Your task to perform on an android device: change the clock style Image 0: 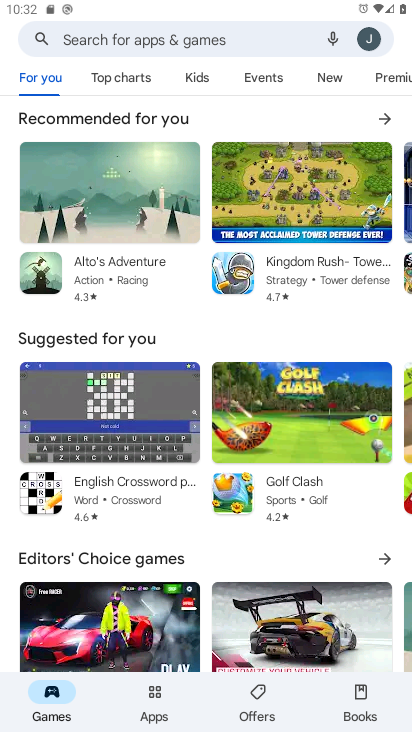
Step 0: press home button
Your task to perform on an android device: change the clock style Image 1: 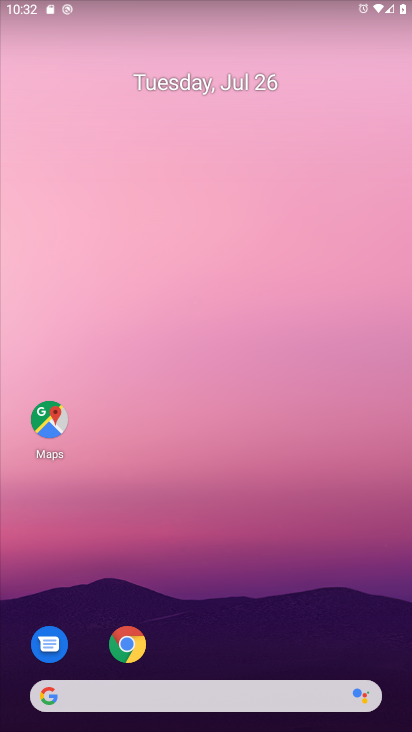
Step 1: drag from (198, 637) to (199, 36)
Your task to perform on an android device: change the clock style Image 2: 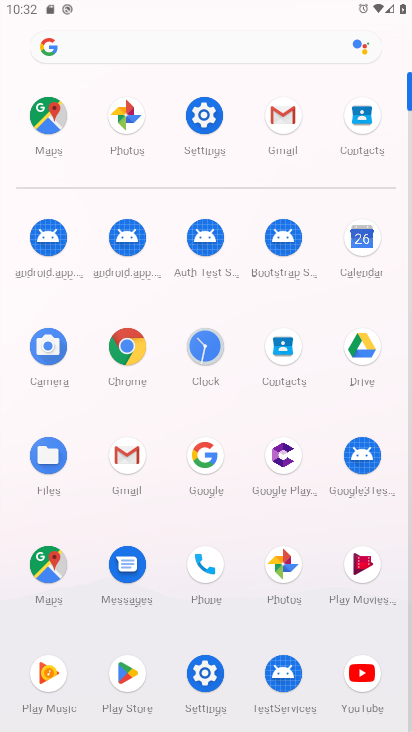
Step 2: click (199, 365)
Your task to perform on an android device: change the clock style Image 3: 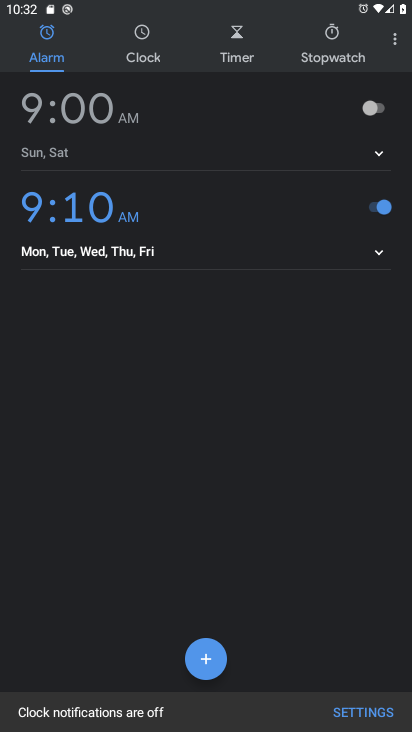
Step 3: click (389, 48)
Your task to perform on an android device: change the clock style Image 4: 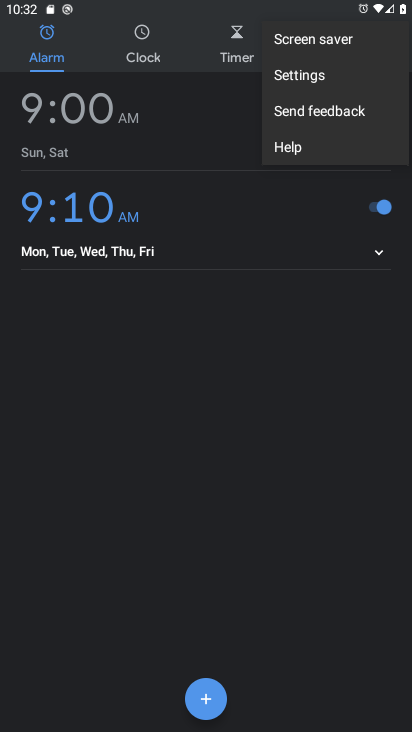
Step 4: click (308, 78)
Your task to perform on an android device: change the clock style Image 5: 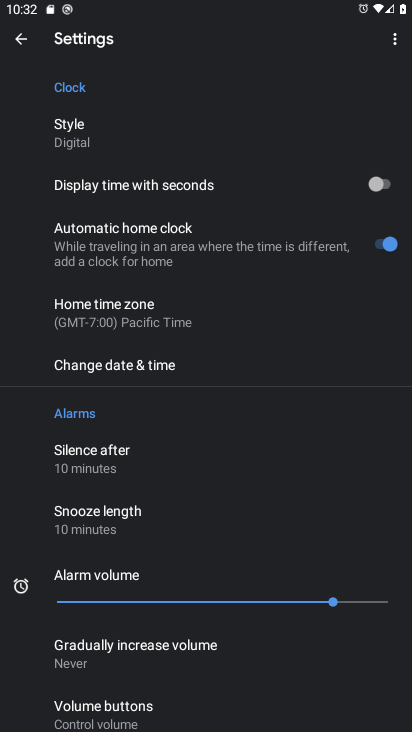
Step 5: click (90, 142)
Your task to perform on an android device: change the clock style Image 6: 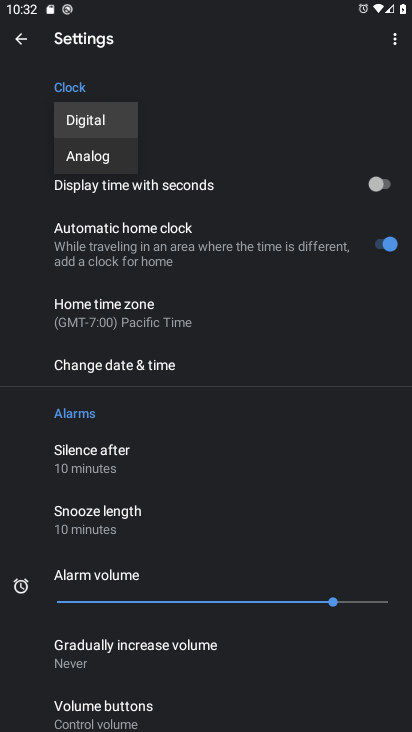
Step 6: click (103, 161)
Your task to perform on an android device: change the clock style Image 7: 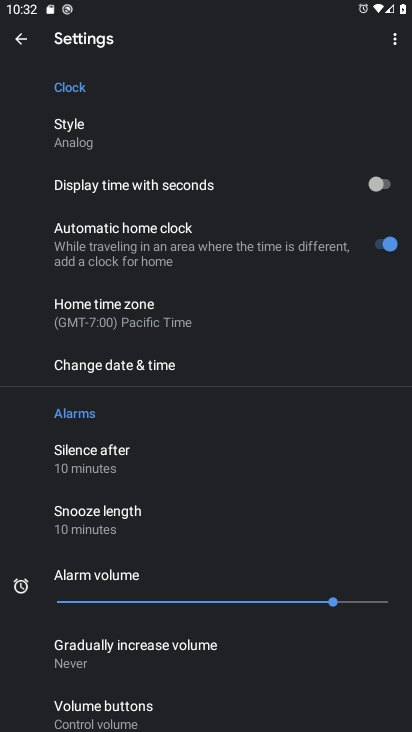
Step 7: task complete